Your task to perform on an android device: turn off javascript in the chrome app Image 0: 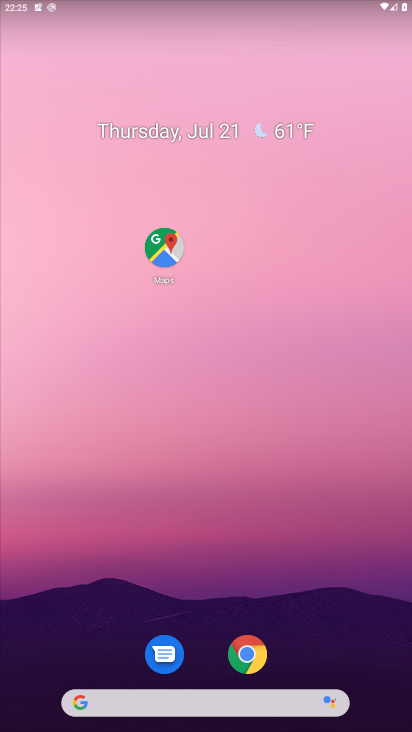
Step 0: click (238, 657)
Your task to perform on an android device: turn off javascript in the chrome app Image 1: 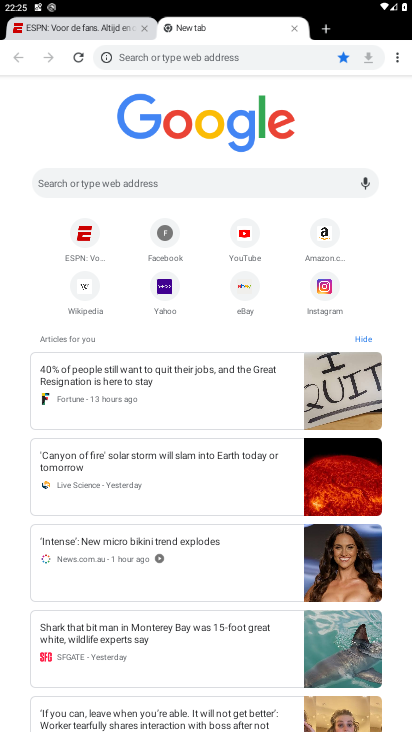
Step 1: click (395, 58)
Your task to perform on an android device: turn off javascript in the chrome app Image 2: 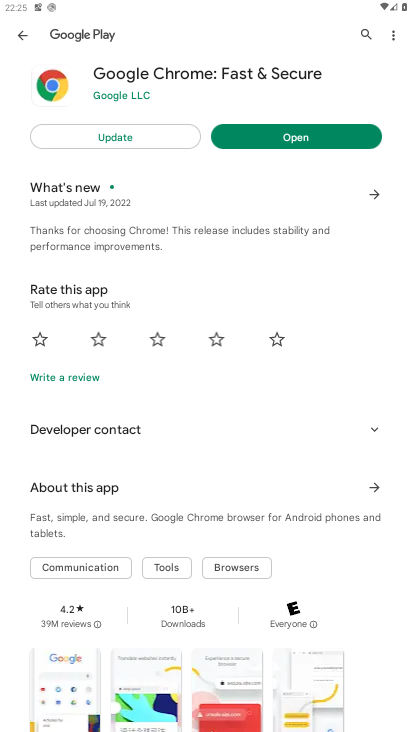
Step 2: click (238, 131)
Your task to perform on an android device: turn off javascript in the chrome app Image 3: 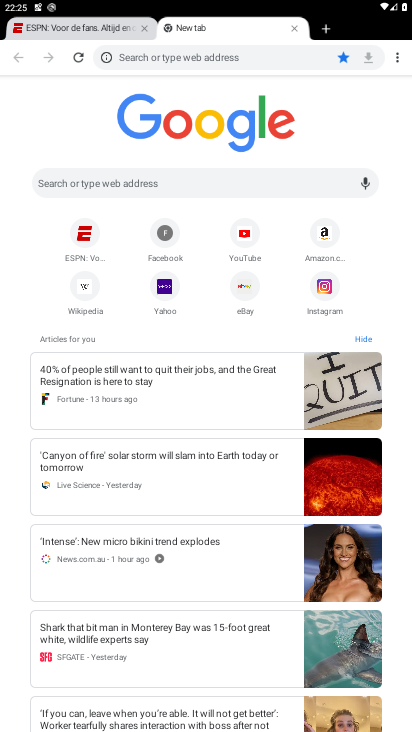
Step 3: click (393, 55)
Your task to perform on an android device: turn off javascript in the chrome app Image 4: 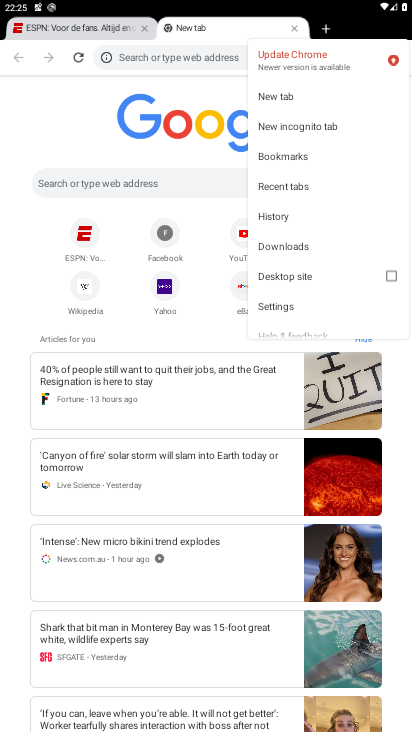
Step 4: click (285, 301)
Your task to perform on an android device: turn off javascript in the chrome app Image 5: 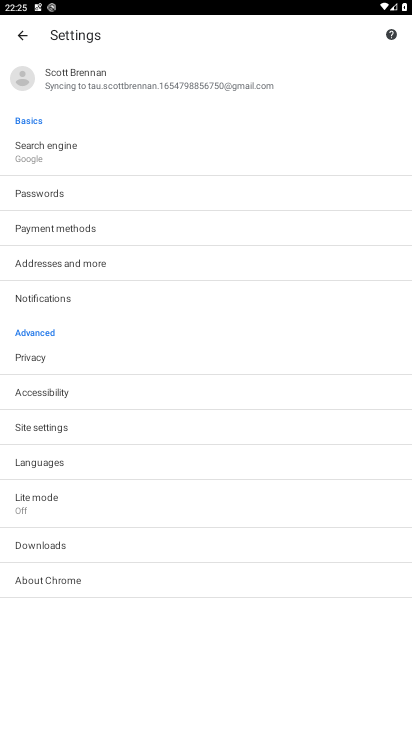
Step 5: click (32, 432)
Your task to perform on an android device: turn off javascript in the chrome app Image 6: 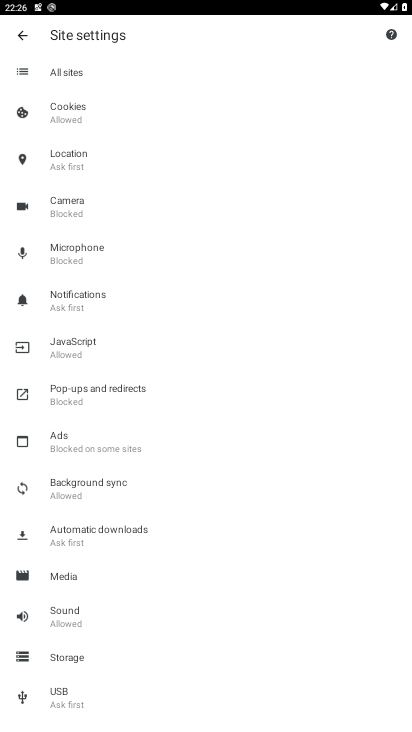
Step 6: click (82, 342)
Your task to perform on an android device: turn off javascript in the chrome app Image 7: 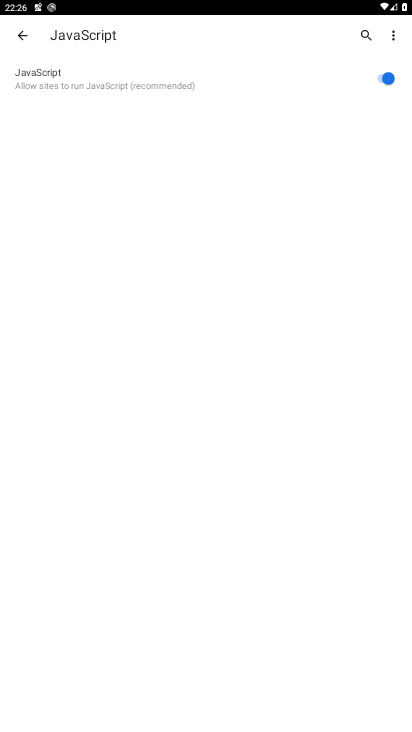
Step 7: click (385, 88)
Your task to perform on an android device: turn off javascript in the chrome app Image 8: 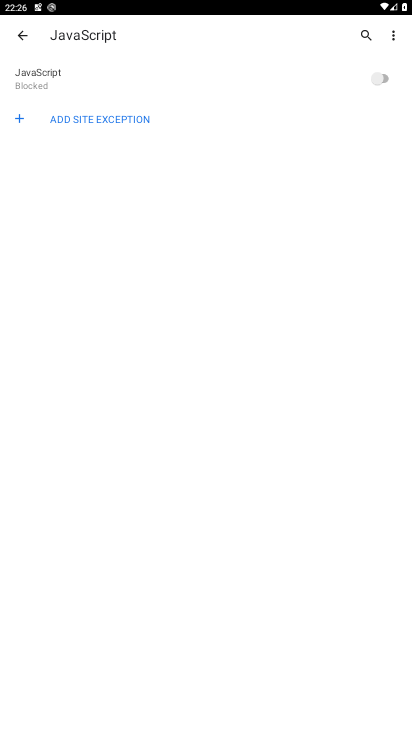
Step 8: task complete